Your task to perform on an android device: Open Yahoo.com Image 0: 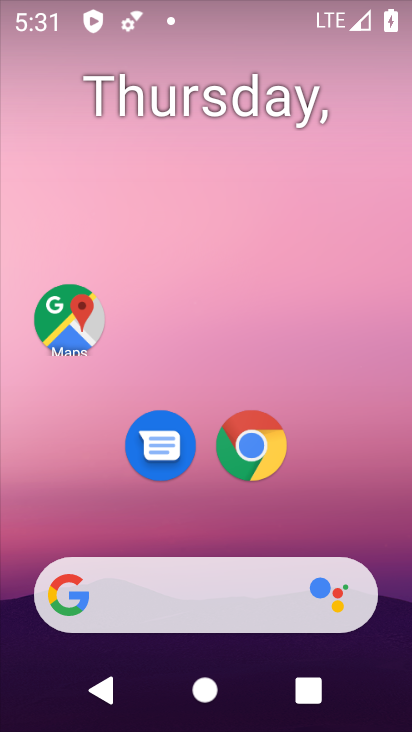
Step 0: click (247, 447)
Your task to perform on an android device: Open Yahoo.com Image 1: 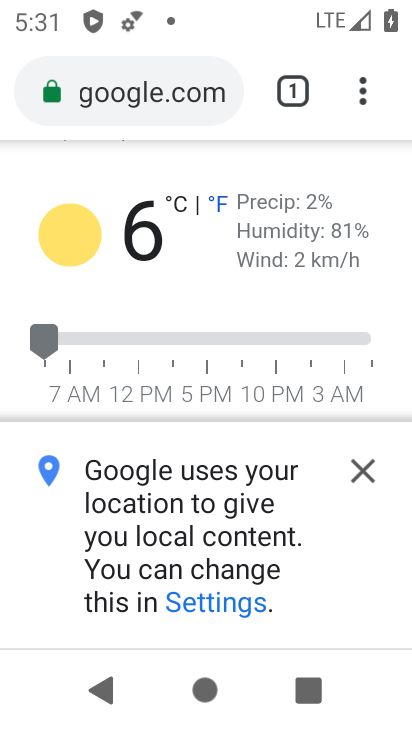
Step 1: click (117, 90)
Your task to perform on an android device: Open Yahoo.com Image 2: 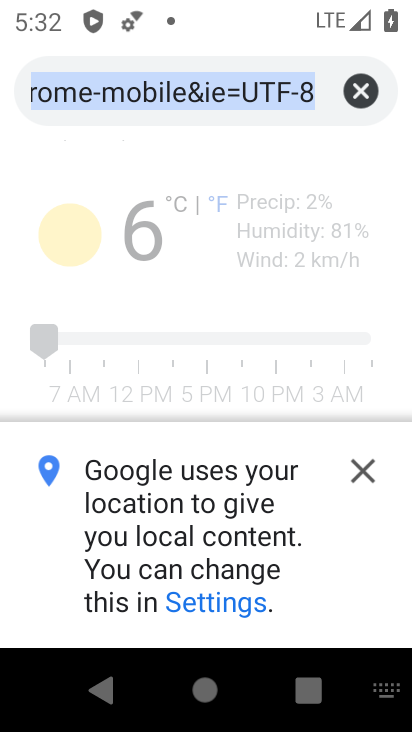
Step 2: click (358, 90)
Your task to perform on an android device: Open Yahoo.com Image 3: 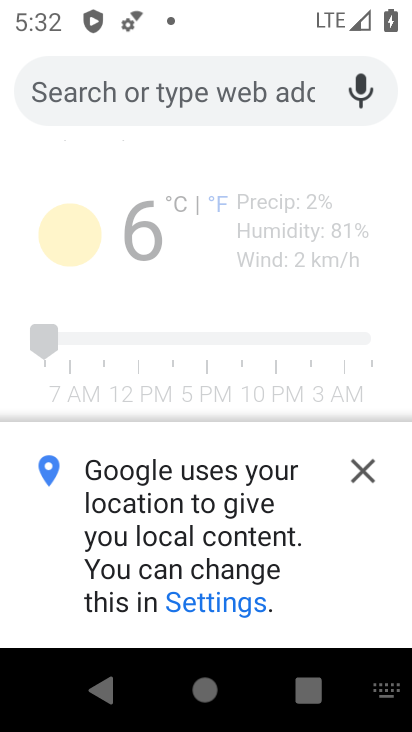
Step 3: type "Yahoo.com"
Your task to perform on an android device: Open Yahoo.com Image 4: 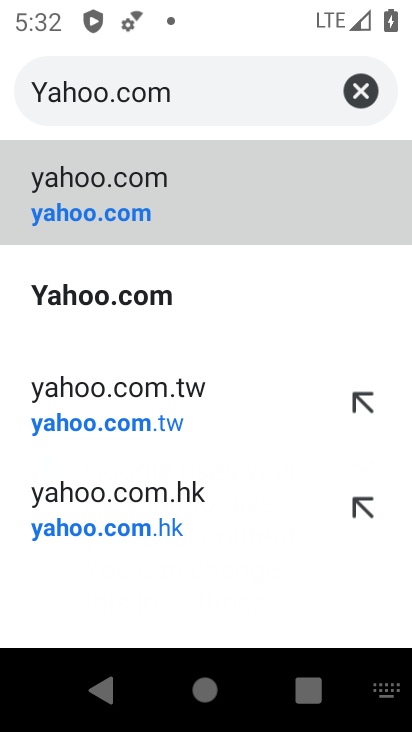
Step 4: click (79, 207)
Your task to perform on an android device: Open Yahoo.com Image 5: 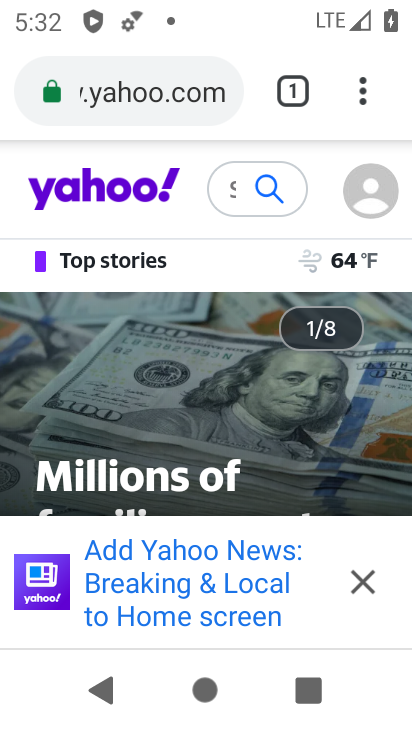
Step 5: task complete